Your task to perform on an android device: Search for Italian restaurants on Maps Image 0: 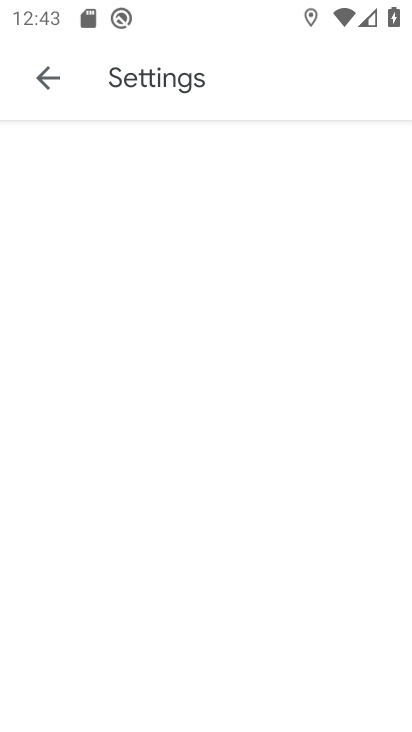
Step 0: drag from (335, 558) to (348, 129)
Your task to perform on an android device: Search for Italian restaurants on Maps Image 1: 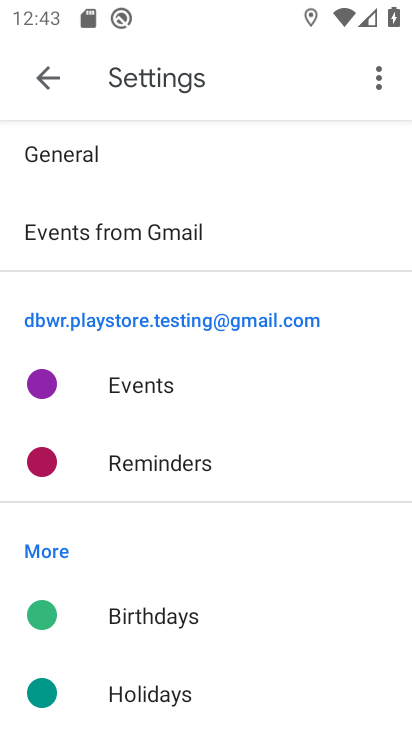
Step 1: press home button
Your task to perform on an android device: Search for Italian restaurants on Maps Image 2: 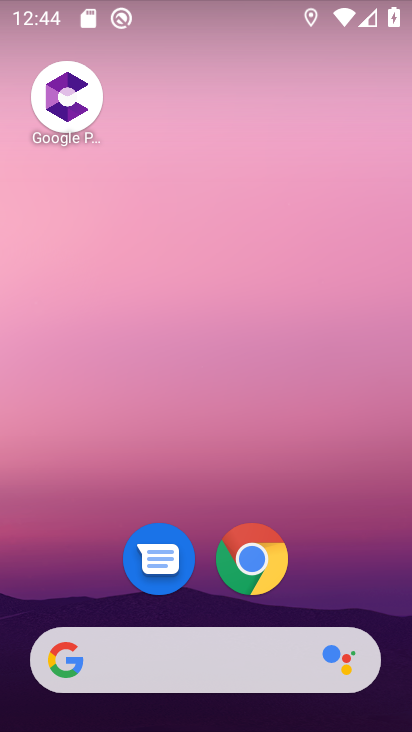
Step 2: drag from (326, 482) to (342, 142)
Your task to perform on an android device: Search for Italian restaurants on Maps Image 3: 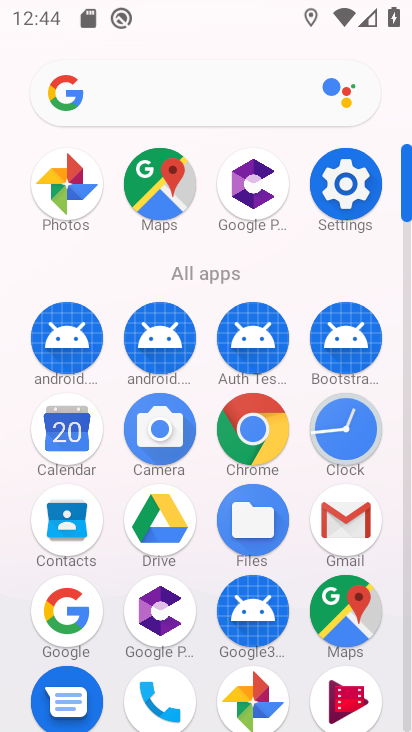
Step 3: drag from (242, 583) to (242, 323)
Your task to perform on an android device: Search for Italian restaurants on Maps Image 4: 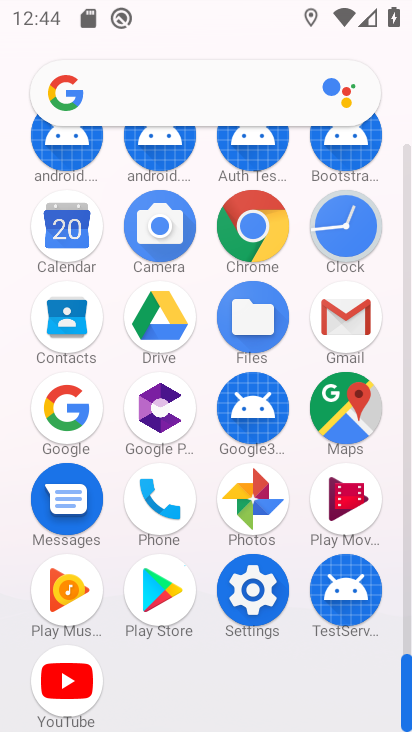
Step 4: click (347, 427)
Your task to perform on an android device: Search for Italian restaurants on Maps Image 5: 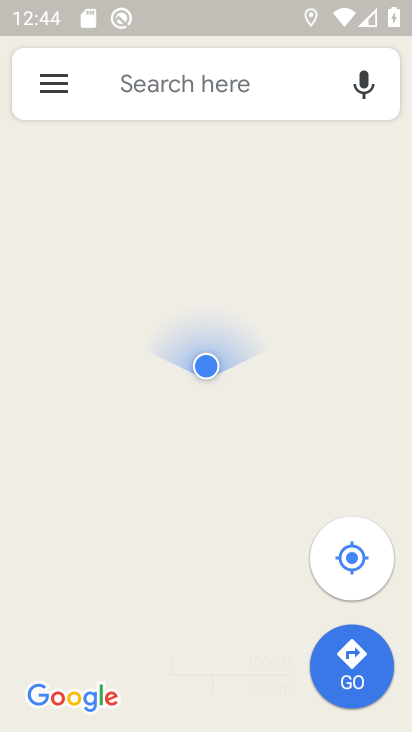
Step 5: click (153, 93)
Your task to perform on an android device: Search for Italian restaurants on Maps Image 6: 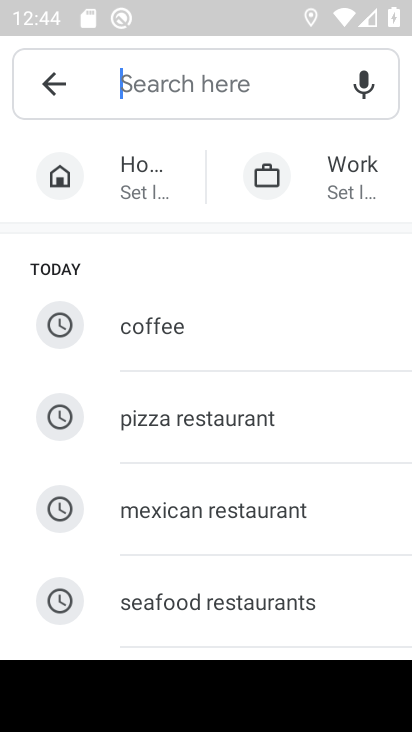
Step 6: drag from (203, 542) to (228, 267)
Your task to perform on an android device: Search for Italian restaurants on Maps Image 7: 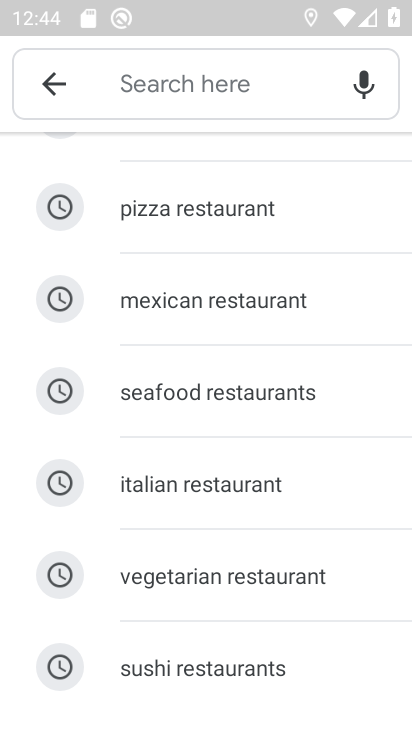
Step 7: click (212, 486)
Your task to perform on an android device: Search for Italian restaurants on Maps Image 8: 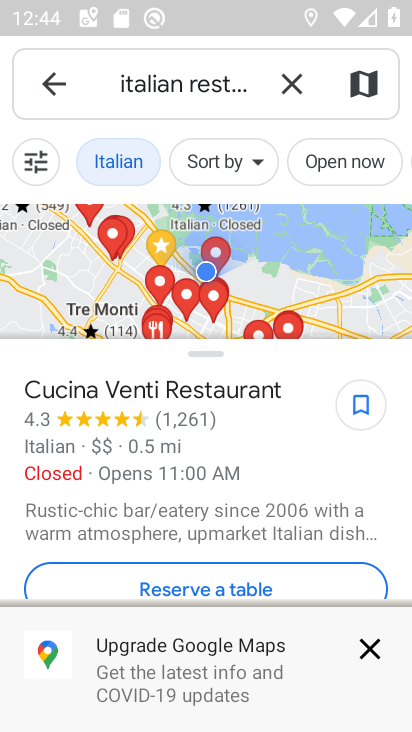
Step 8: task complete